Your task to perform on an android device: Go to notification settings Image 0: 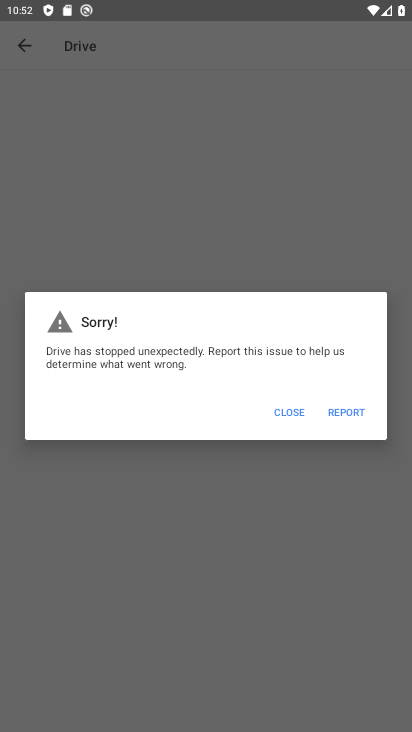
Step 0: press home button
Your task to perform on an android device: Go to notification settings Image 1: 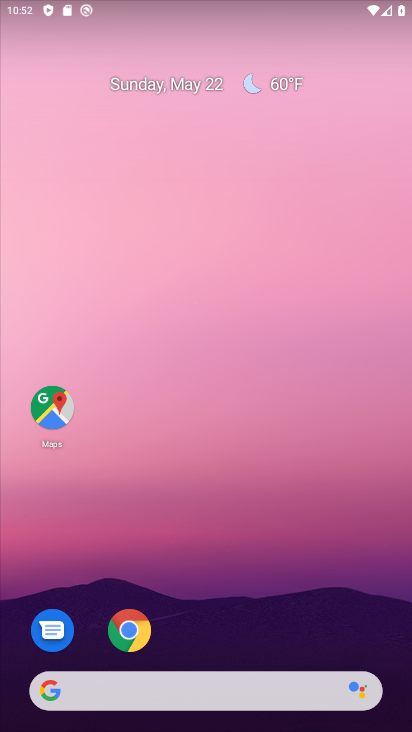
Step 1: drag from (261, 600) to (235, 231)
Your task to perform on an android device: Go to notification settings Image 2: 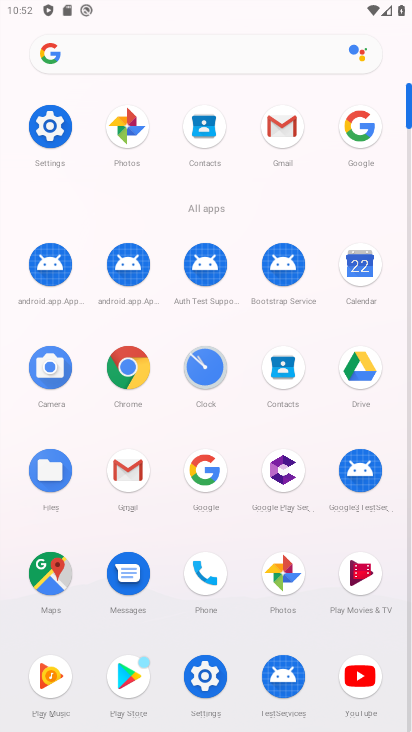
Step 2: click (47, 123)
Your task to perform on an android device: Go to notification settings Image 3: 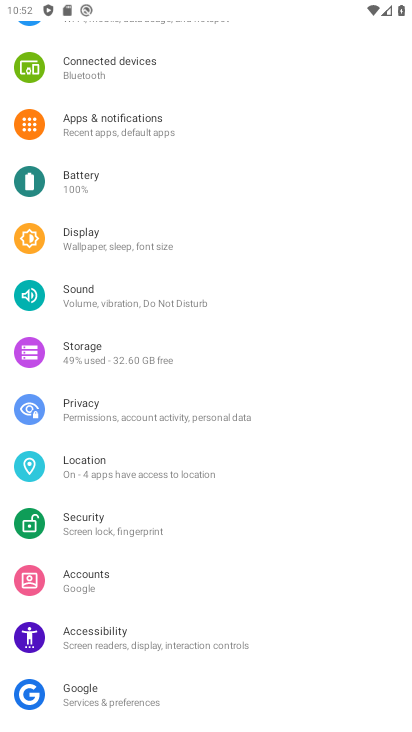
Step 3: drag from (90, 248) to (119, 335)
Your task to perform on an android device: Go to notification settings Image 4: 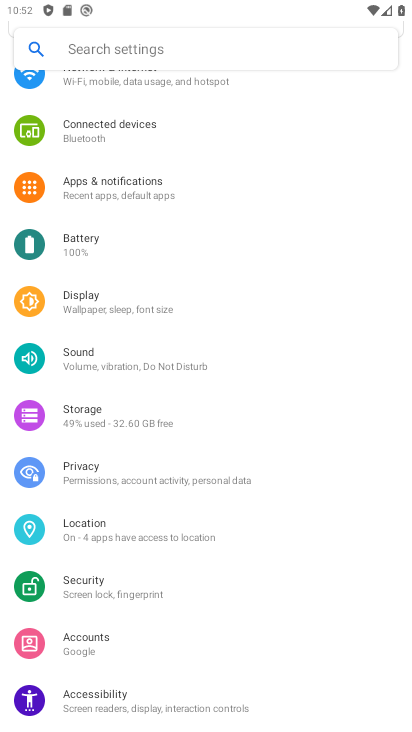
Step 4: click (132, 189)
Your task to perform on an android device: Go to notification settings Image 5: 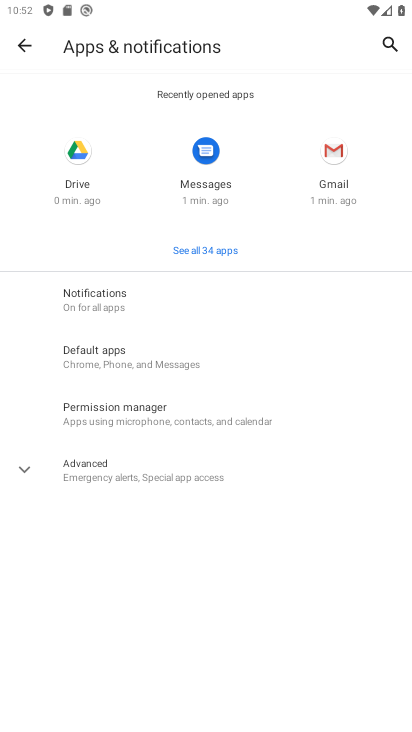
Step 5: click (97, 296)
Your task to perform on an android device: Go to notification settings Image 6: 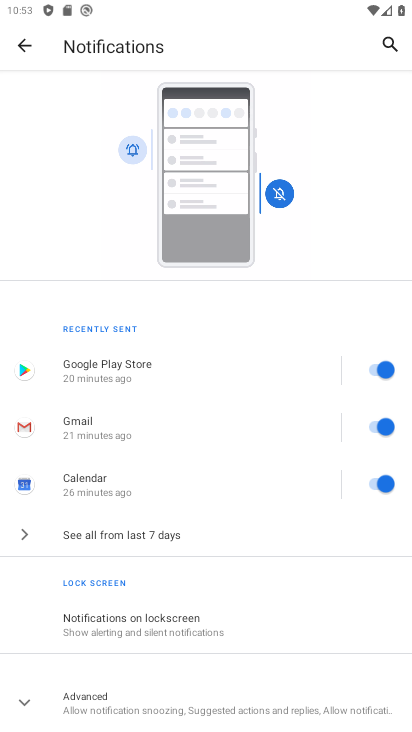
Step 6: task complete